Your task to perform on an android device: Open settings Image 0: 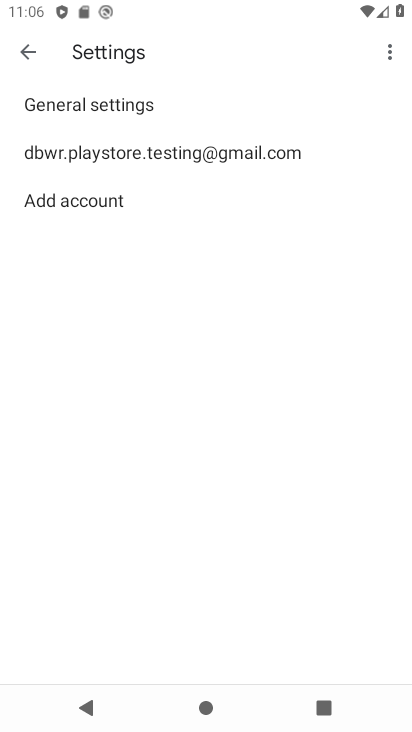
Step 0: press home button
Your task to perform on an android device: Open settings Image 1: 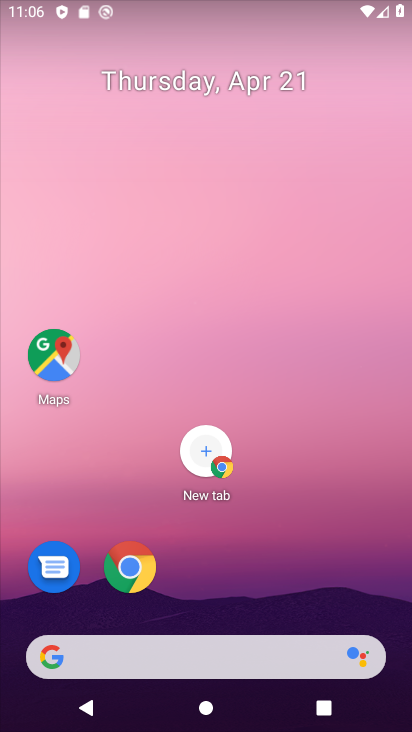
Step 1: drag from (214, 606) to (213, 181)
Your task to perform on an android device: Open settings Image 2: 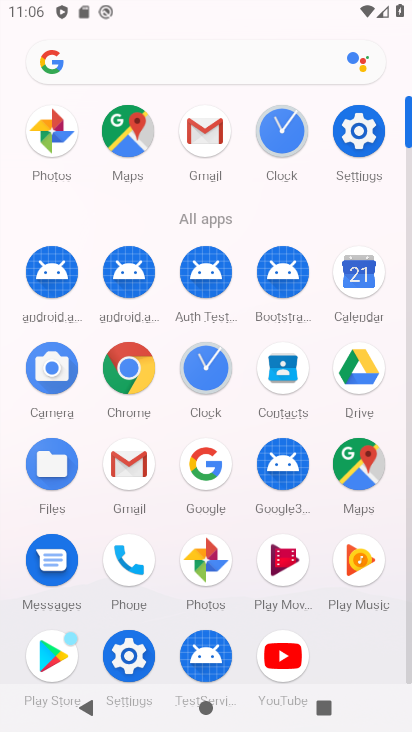
Step 2: click (361, 132)
Your task to perform on an android device: Open settings Image 3: 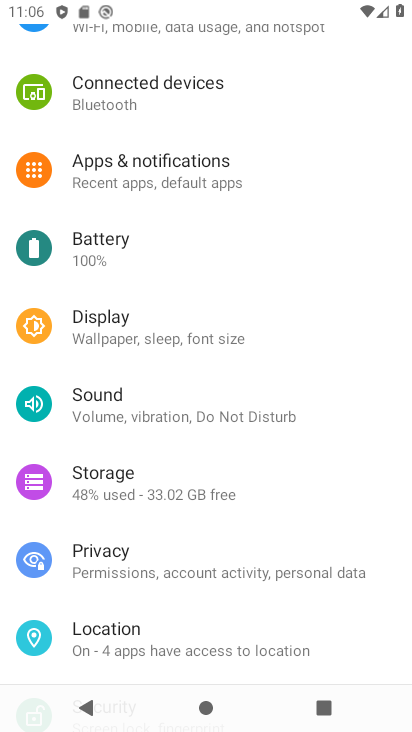
Step 3: task complete